Your task to perform on an android device: Open my contact list Image 0: 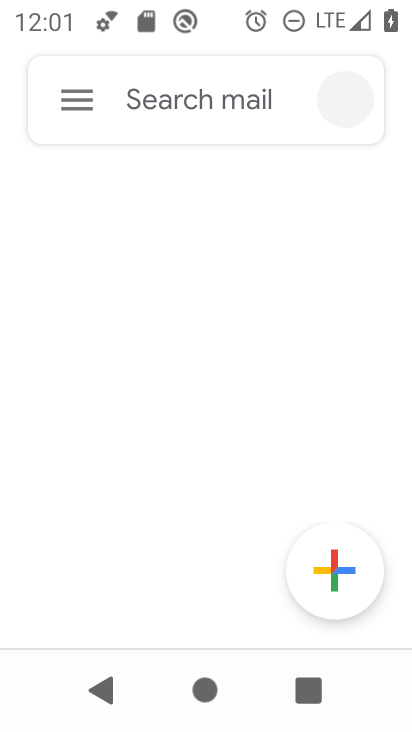
Step 0: click (65, 321)
Your task to perform on an android device: Open my contact list Image 1: 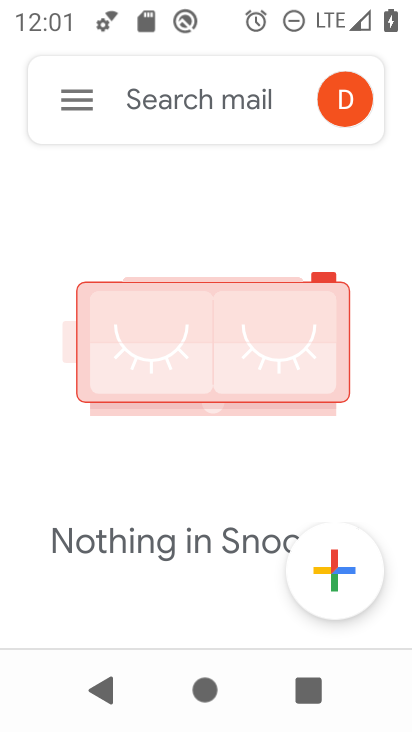
Step 1: press home button
Your task to perform on an android device: Open my contact list Image 2: 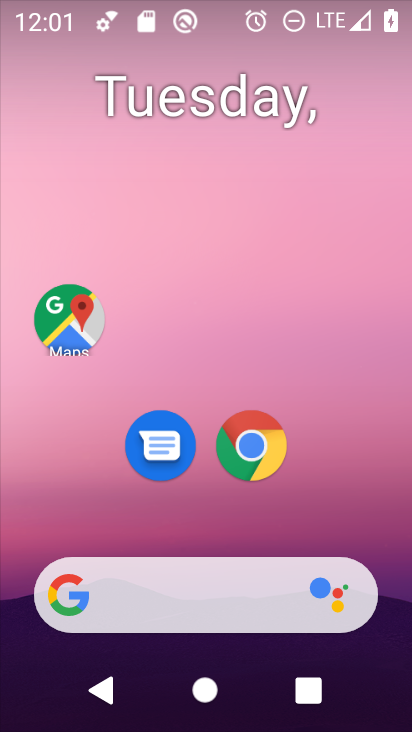
Step 2: drag from (325, 488) to (252, 124)
Your task to perform on an android device: Open my contact list Image 3: 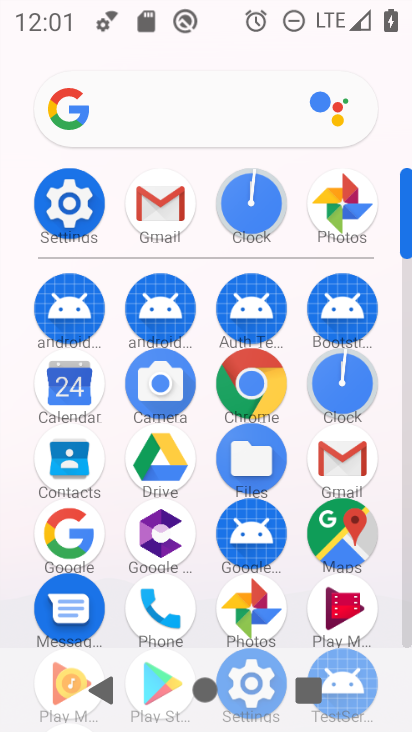
Step 3: click (66, 453)
Your task to perform on an android device: Open my contact list Image 4: 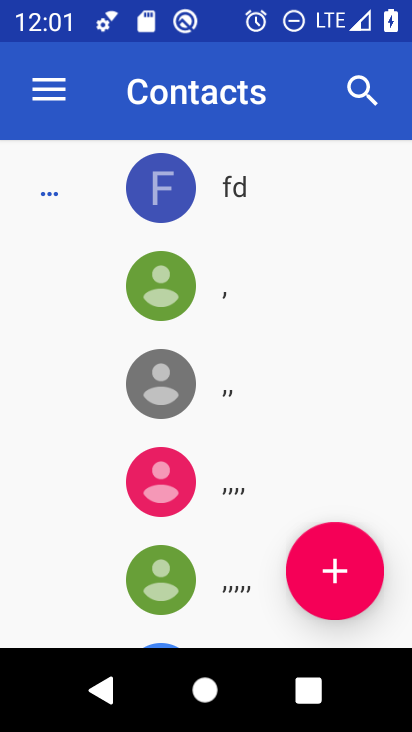
Step 4: task complete